Your task to perform on an android device: turn on javascript in the chrome app Image 0: 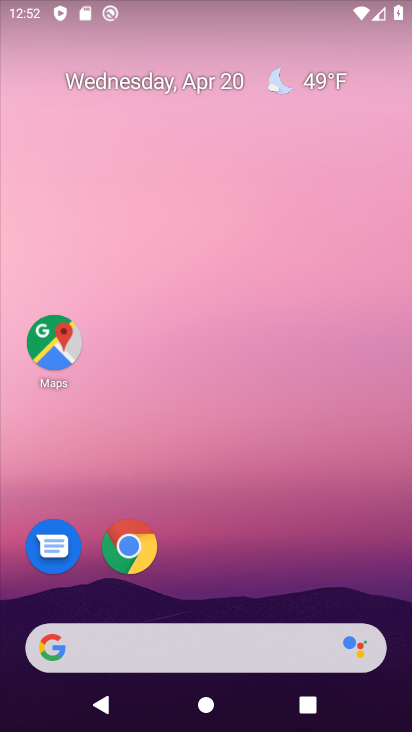
Step 0: click (139, 541)
Your task to perform on an android device: turn on javascript in the chrome app Image 1: 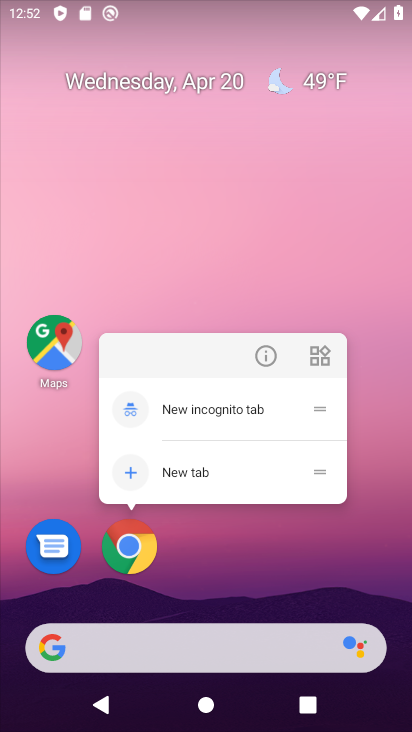
Step 1: click (132, 550)
Your task to perform on an android device: turn on javascript in the chrome app Image 2: 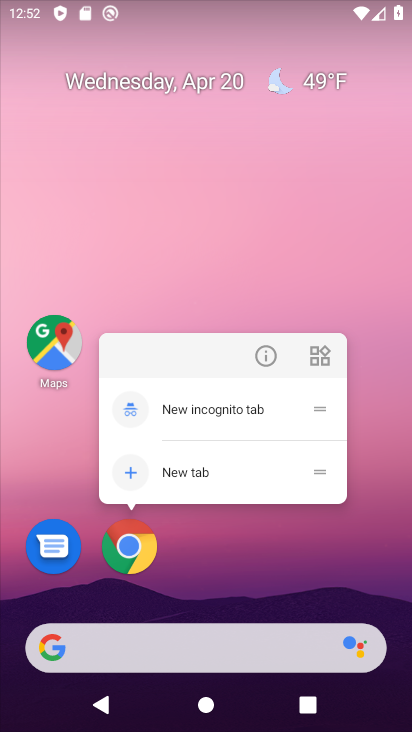
Step 2: click (140, 546)
Your task to perform on an android device: turn on javascript in the chrome app Image 3: 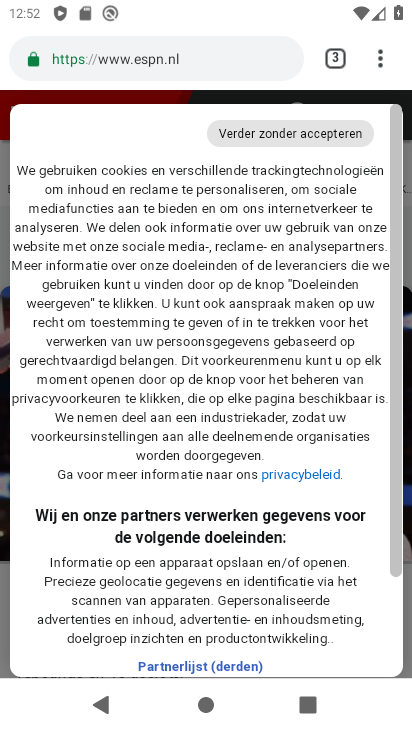
Step 3: click (374, 59)
Your task to perform on an android device: turn on javascript in the chrome app Image 4: 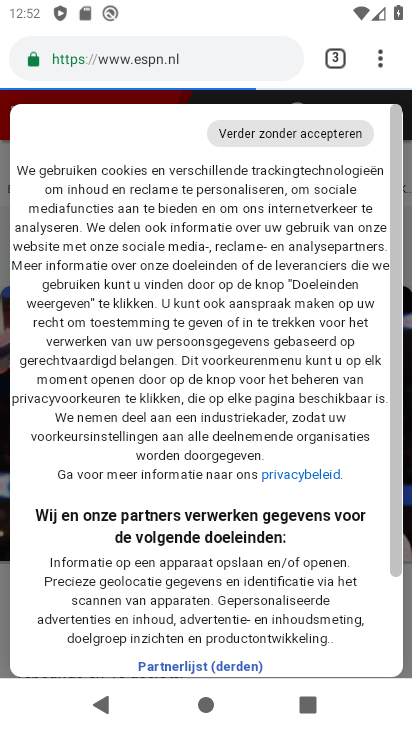
Step 4: drag from (377, 60) to (166, 567)
Your task to perform on an android device: turn on javascript in the chrome app Image 5: 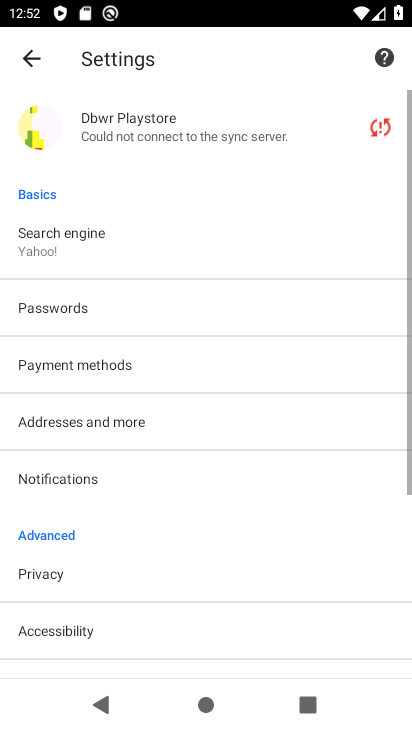
Step 5: drag from (102, 578) to (190, 143)
Your task to perform on an android device: turn on javascript in the chrome app Image 6: 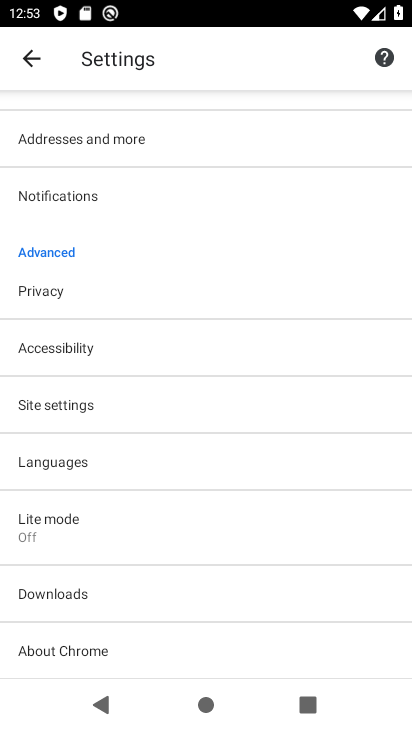
Step 6: click (89, 399)
Your task to perform on an android device: turn on javascript in the chrome app Image 7: 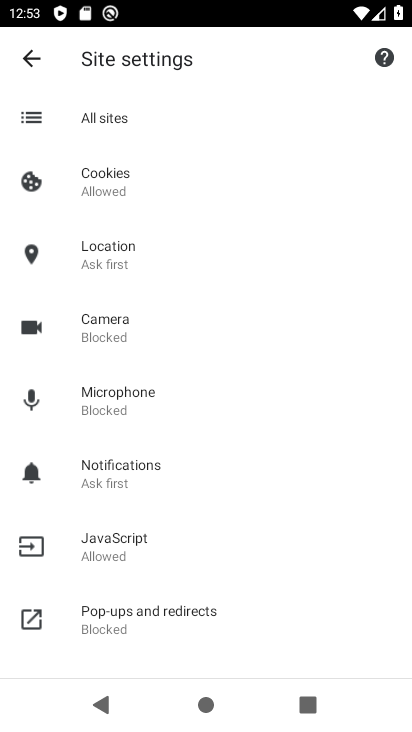
Step 7: click (160, 561)
Your task to perform on an android device: turn on javascript in the chrome app Image 8: 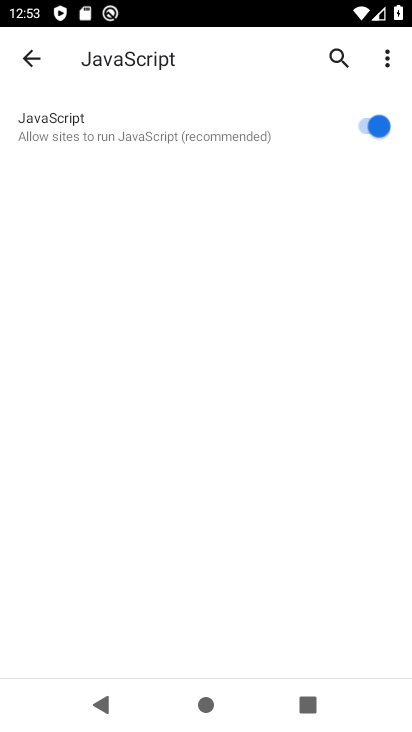
Step 8: task complete